Your task to perform on an android device: change notifications settings Image 0: 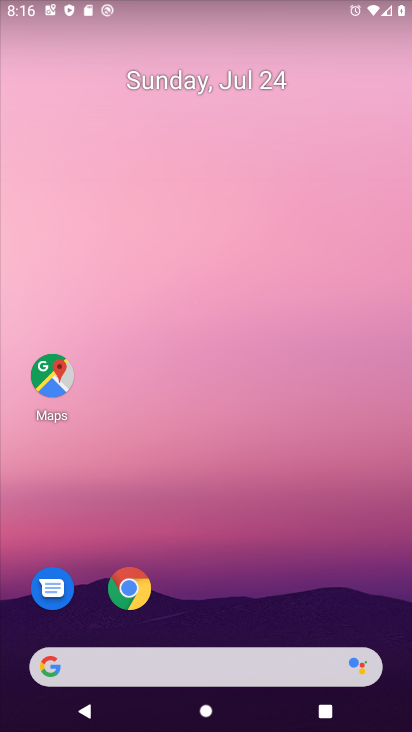
Step 0: drag from (232, 366) to (112, 14)
Your task to perform on an android device: change notifications settings Image 1: 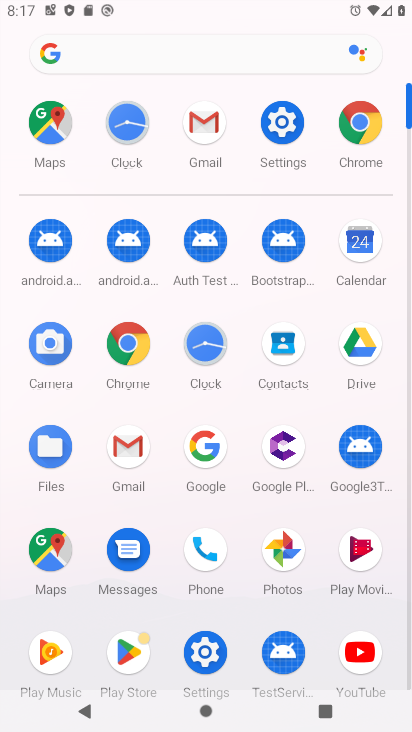
Step 1: click (285, 119)
Your task to perform on an android device: change notifications settings Image 2: 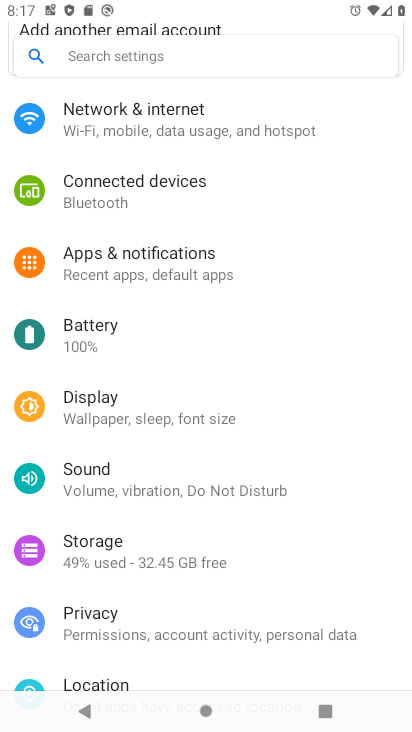
Step 2: click (169, 260)
Your task to perform on an android device: change notifications settings Image 3: 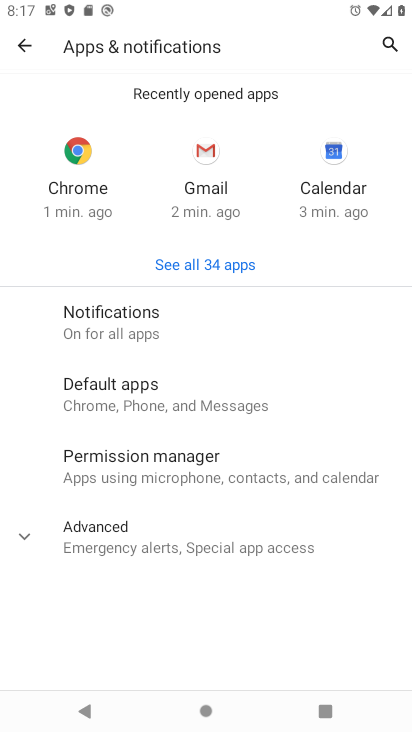
Step 3: click (139, 331)
Your task to perform on an android device: change notifications settings Image 4: 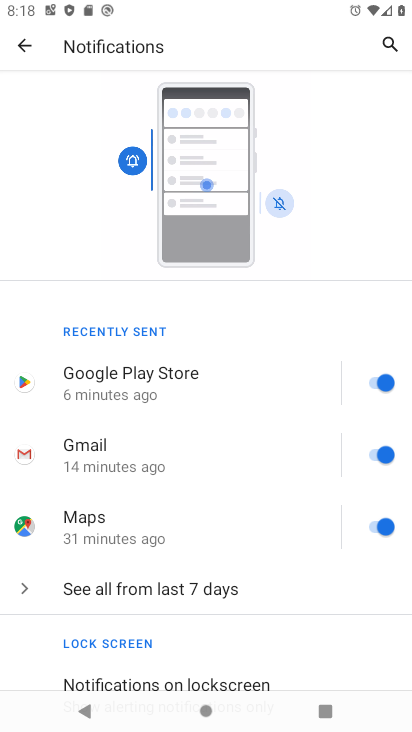
Step 4: task complete